Your task to perform on an android device: Search for pizza restaurants on Maps Image 0: 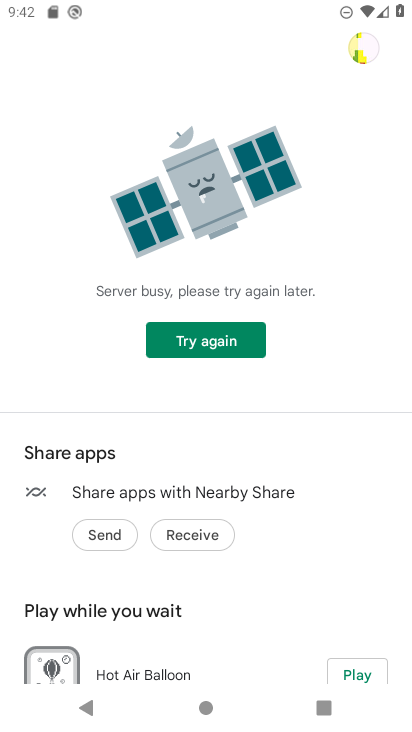
Step 0: press home button
Your task to perform on an android device: Search for pizza restaurants on Maps Image 1: 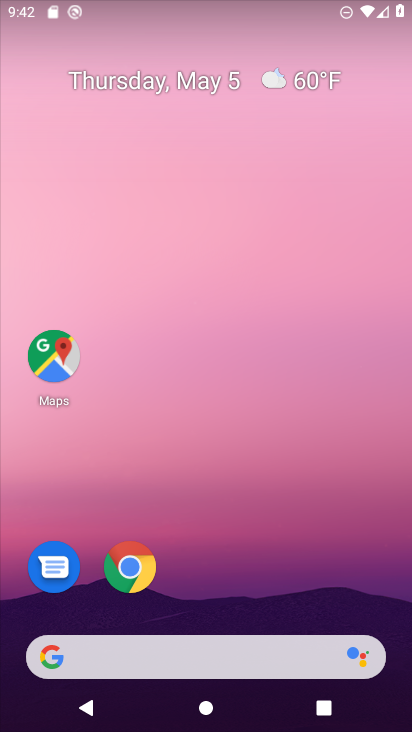
Step 1: drag from (225, 727) to (227, 192)
Your task to perform on an android device: Search for pizza restaurants on Maps Image 2: 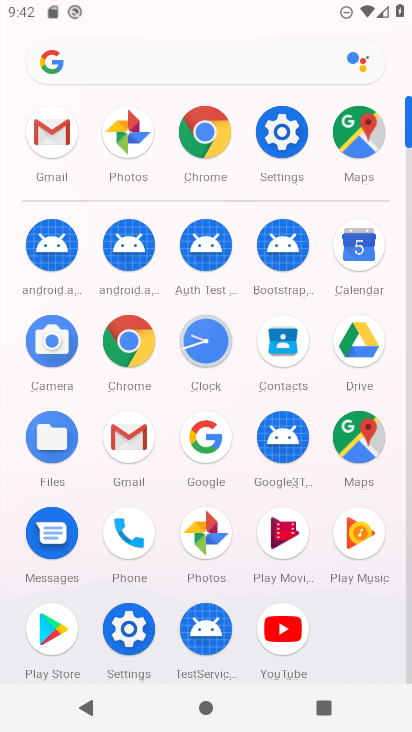
Step 2: click (347, 434)
Your task to perform on an android device: Search for pizza restaurants on Maps Image 3: 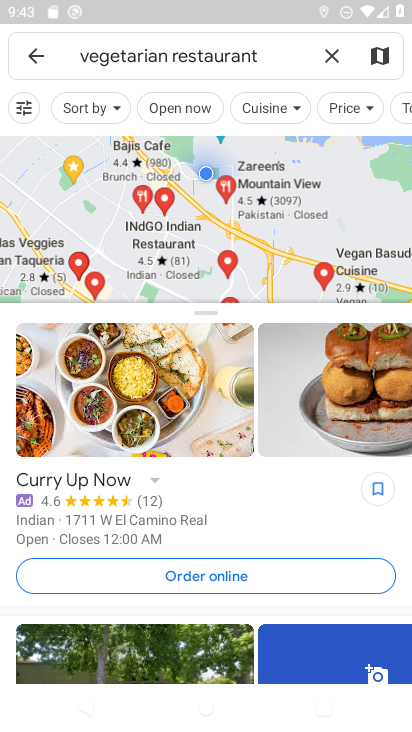
Step 3: click (326, 49)
Your task to perform on an android device: Search for pizza restaurants on Maps Image 4: 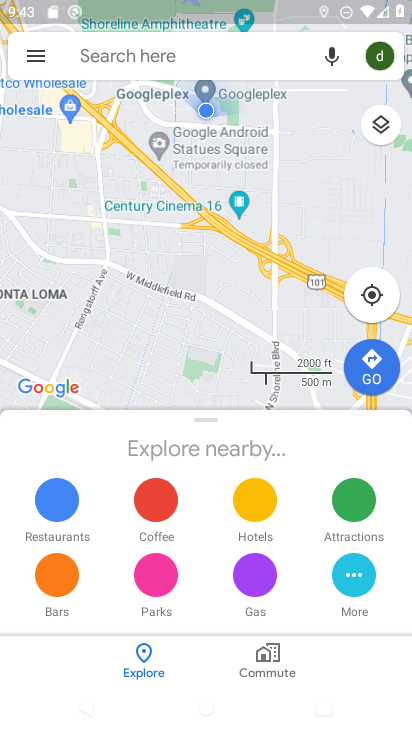
Step 4: click (191, 53)
Your task to perform on an android device: Search for pizza restaurants on Maps Image 5: 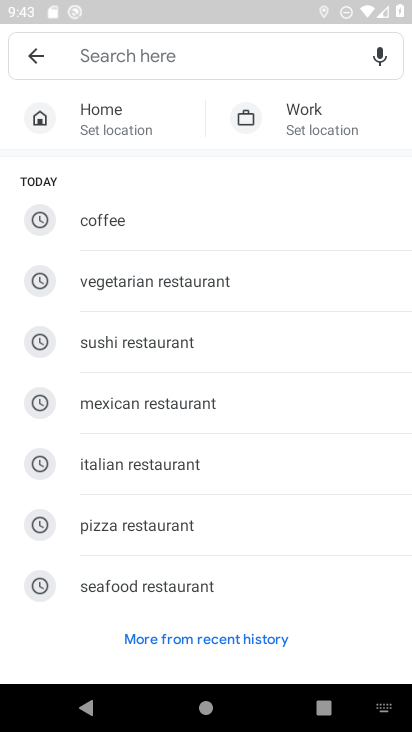
Step 5: type "Pizza restaurants"
Your task to perform on an android device: Search for pizza restaurants on Maps Image 6: 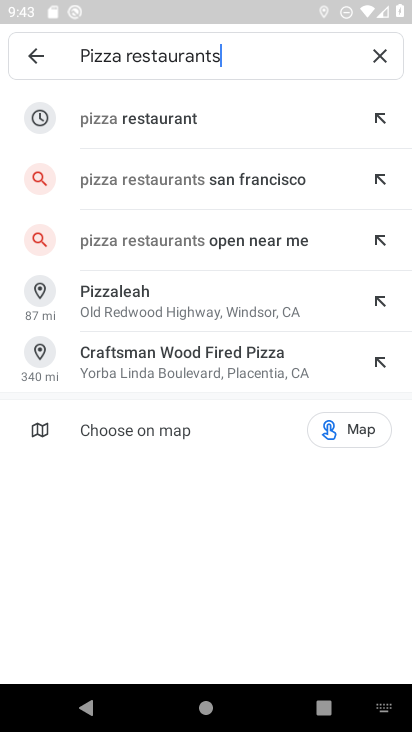
Step 6: click (184, 115)
Your task to perform on an android device: Search for pizza restaurants on Maps Image 7: 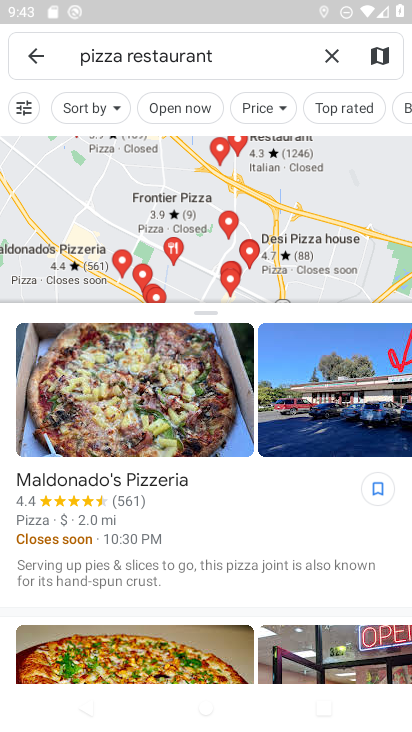
Step 7: task complete